Your task to perform on an android device: change notification settings in the gmail app Image 0: 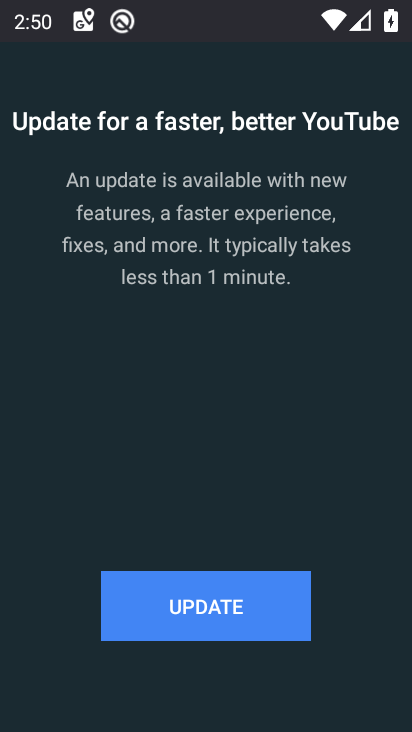
Step 0: press home button
Your task to perform on an android device: change notification settings in the gmail app Image 1: 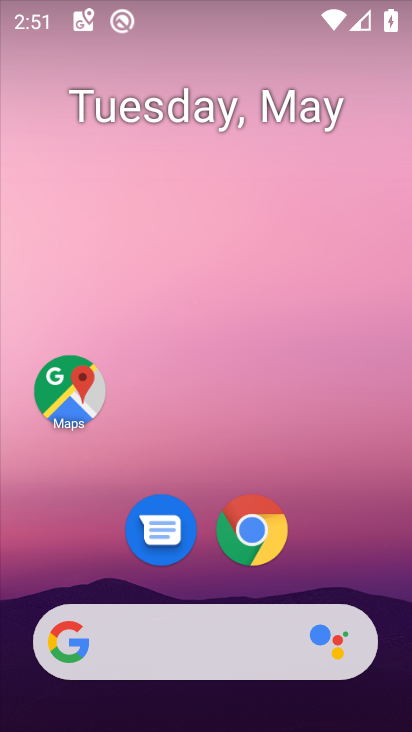
Step 1: drag from (93, 657) to (373, 175)
Your task to perform on an android device: change notification settings in the gmail app Image 2: 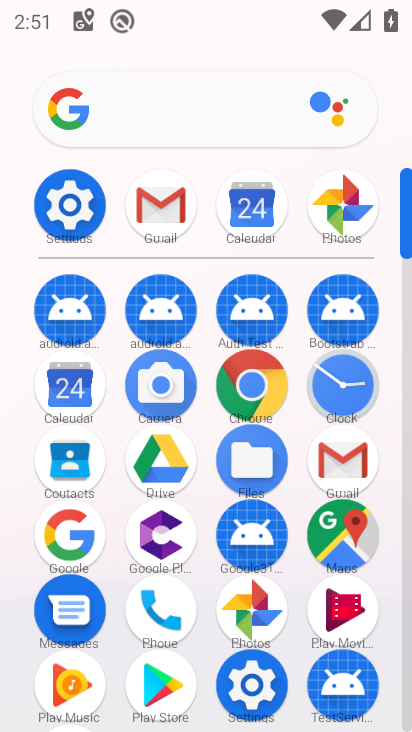
Step 2: click (173, 204)
Your task to perform on an android device: change notification settings in the gmail app Image 3: 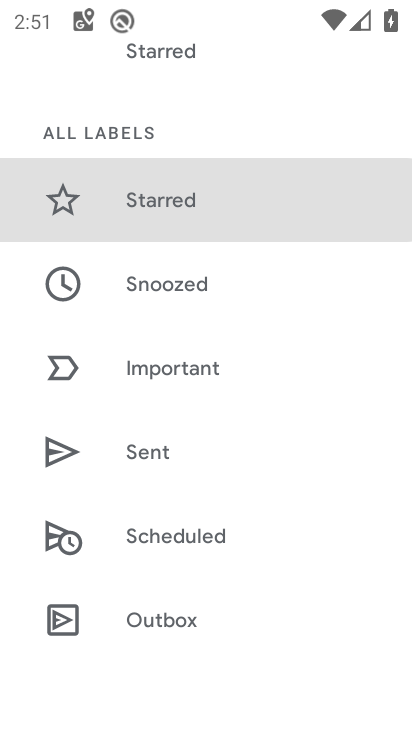
Step 3: drag from (104, 645) to (307, 69)
Your task to perform on an android device: change notification settings in the gmail app Image 4: 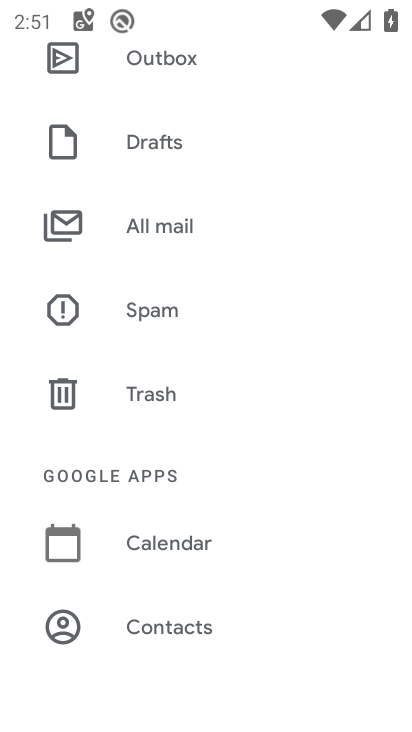
Step 4: drag from (24, 532) to (242, 161)
Your task to perform on an android device: change notification settings in the gmail app Image 5: 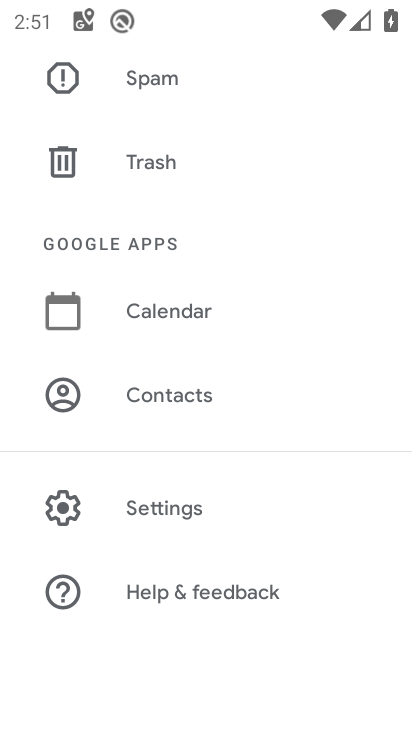
Step 5: click (133, 504)
Your task to perform on an android device: change notification settings in the gmail app Image 6: 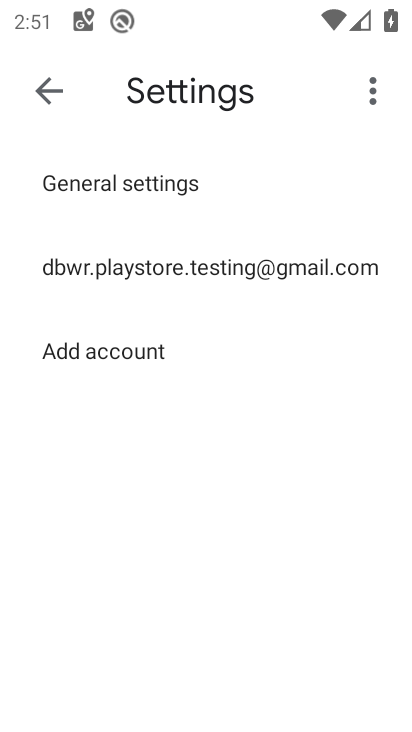
Step 6: click (130, 256)
Your task to perform on an android device: change notification settings in the gmail app Image 7: 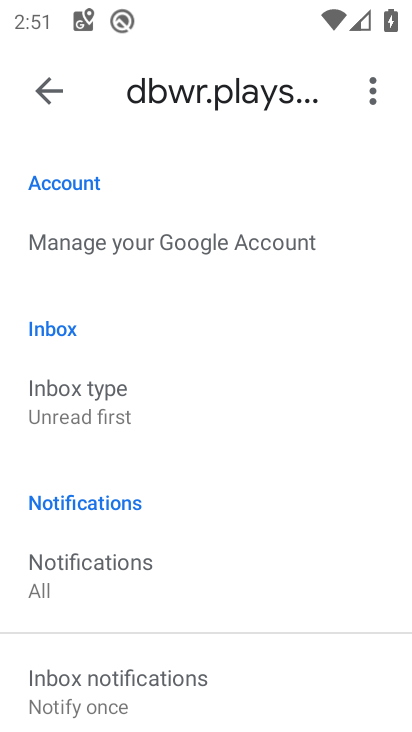
Step 7: drag from (68, 691) to (251, 239)
Your task to perform on an android device: change notification settings in the gmail app Image 8: 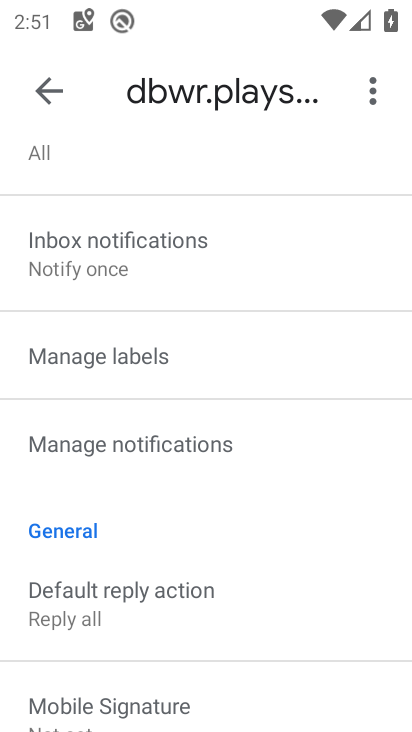
Step 8: click (148, 443)
Your task to perform on an android device: change notification settings in the gmail app Image 9: 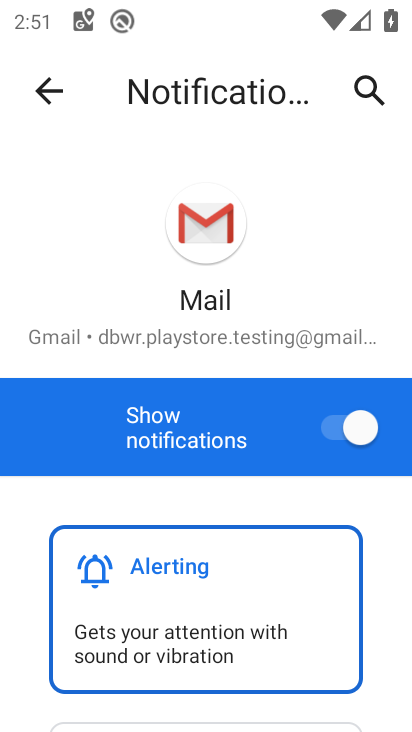
Step 9: click (358, 432)
Your task to perform on an android device: change notification settings in the gmail app Image 10: 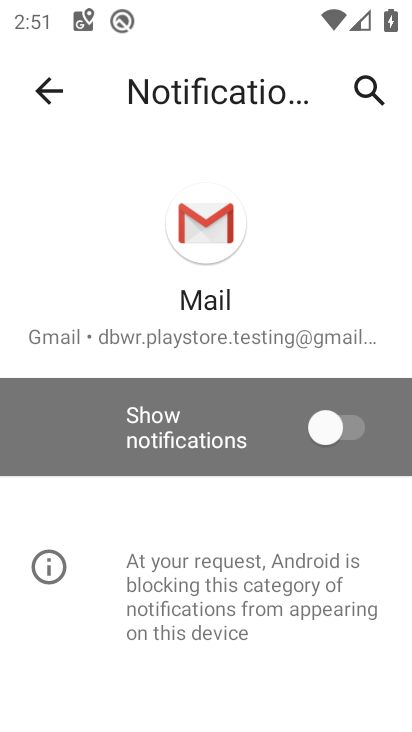
Step 10: task complete